Your task to perform on an android device: Go to location settings Image 0: 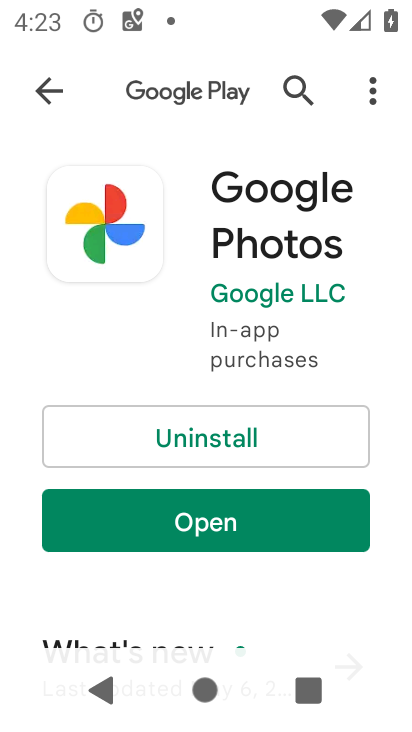
Step 0: press home button
Your task to perform on an android device: Go to location settings Image 1: 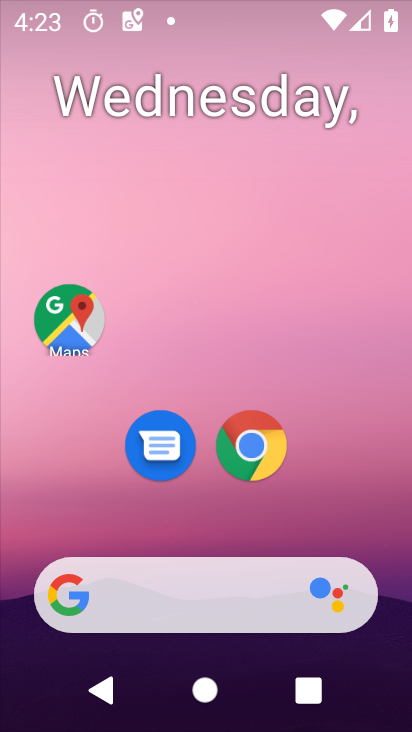
Step 1: drag from (193, 522) to (334, 62)
Your task to perform on an android device: Go to location settings Image 2: 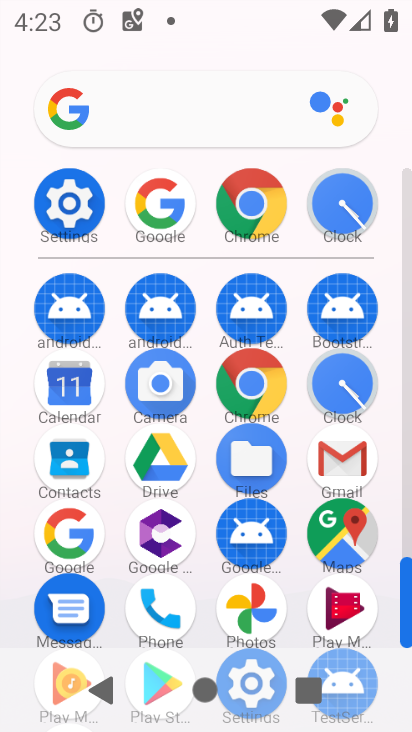
Step 2: click (71, 202)
Your task to perform on an android device: Go to location settings Image 3: 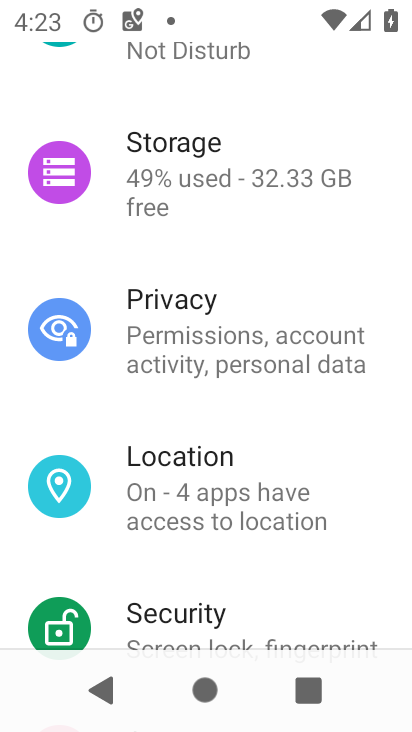
Step 3: click (216, 482)
Your task to perform on an android device: Go to location settings Image 4: 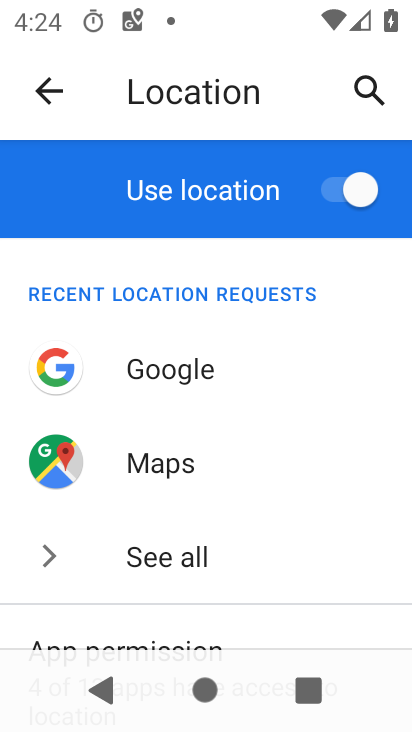
Step 4: task complete